Your task to perform on an android device: Show the shopping cart on ebay. Add "bose soundlink" to the cart on ebay, then select checkout. Image 0: 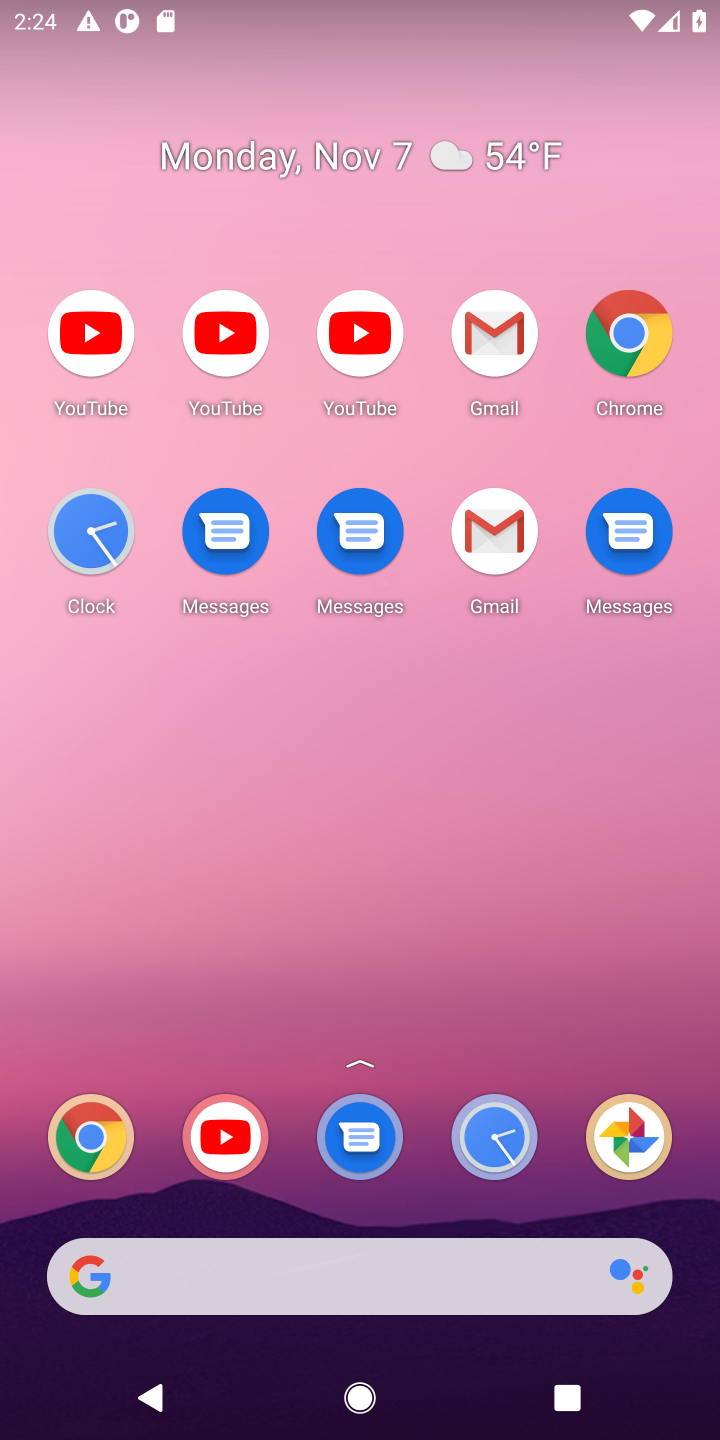
Step 0: drag from (423, 1075) to (428, 87)
Your task to perform on an android device: Show the shopping cart on ebay. Add "bose soundlink" to the cart on ebay, then select checkout. Image 1: 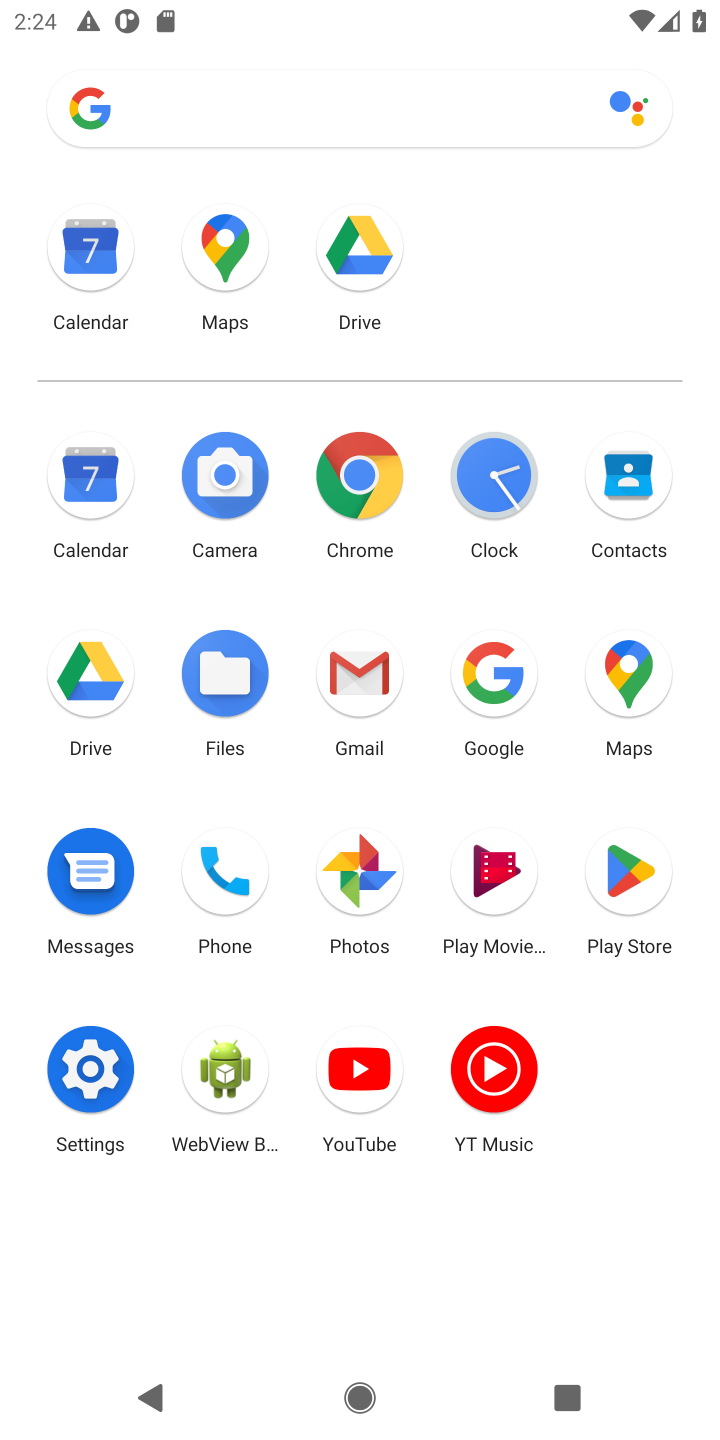
Step 1: click (354, 461)
Your task to perform on an android device: Show the shopping cart on ebay. Add "bose soundlink" to the cart on ebay, then select checkout. Image 2: 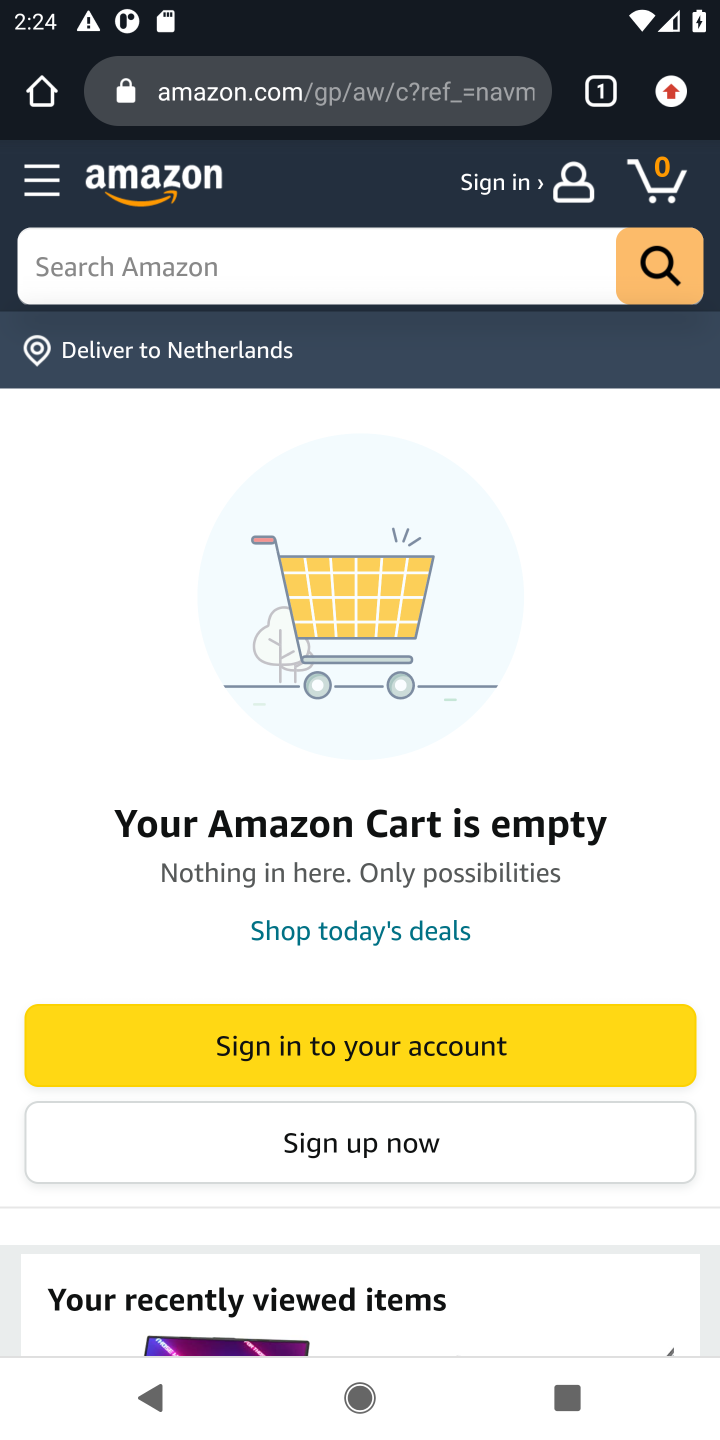
Step 2: click (395, 107)
Your task to perform on an android device: Show the shopping cart on ebay. Add "bose soundlink" to the cart on ebay, then select checkout. Image 3: 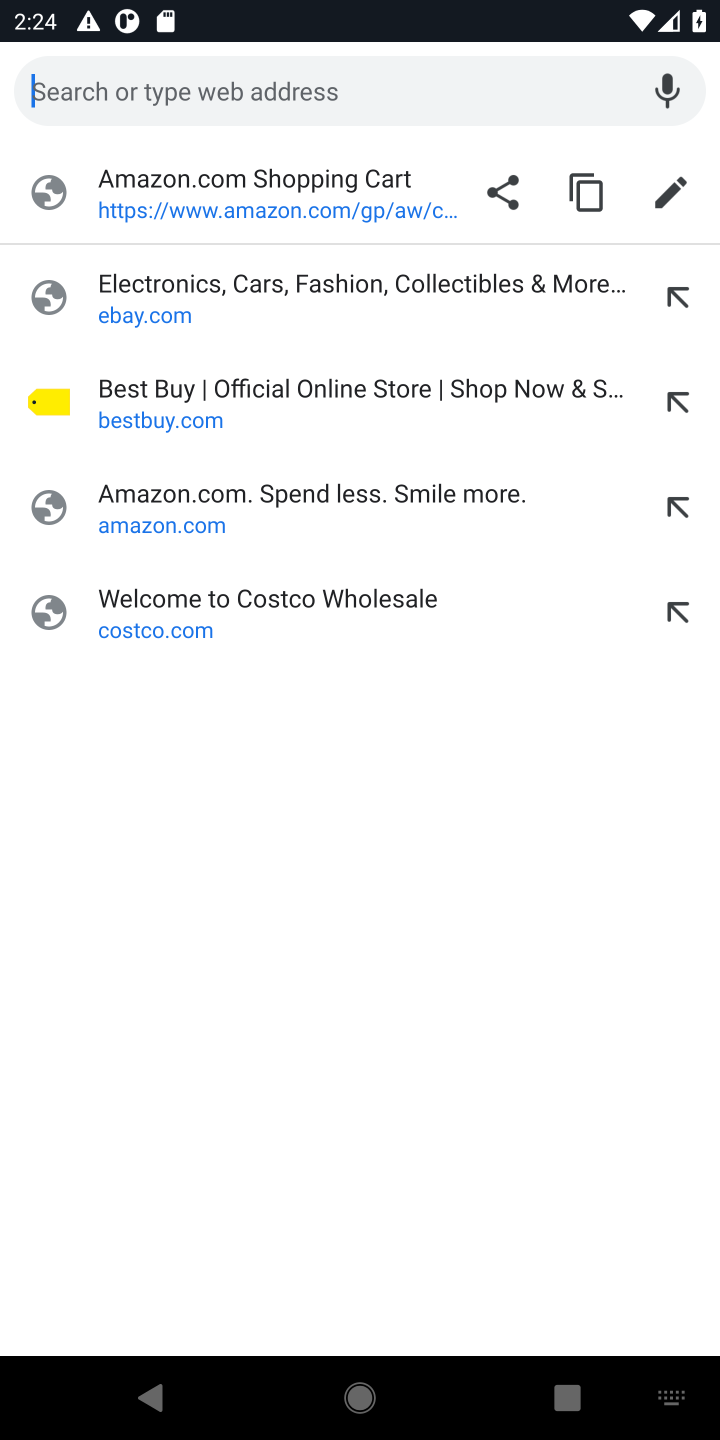
Step 3: type "ebay.com"
Your task to perform on an android device: Show the shopping cart on ebay. Add "bose soundlink" to the cart on ebay, then select checkout. Image 4: 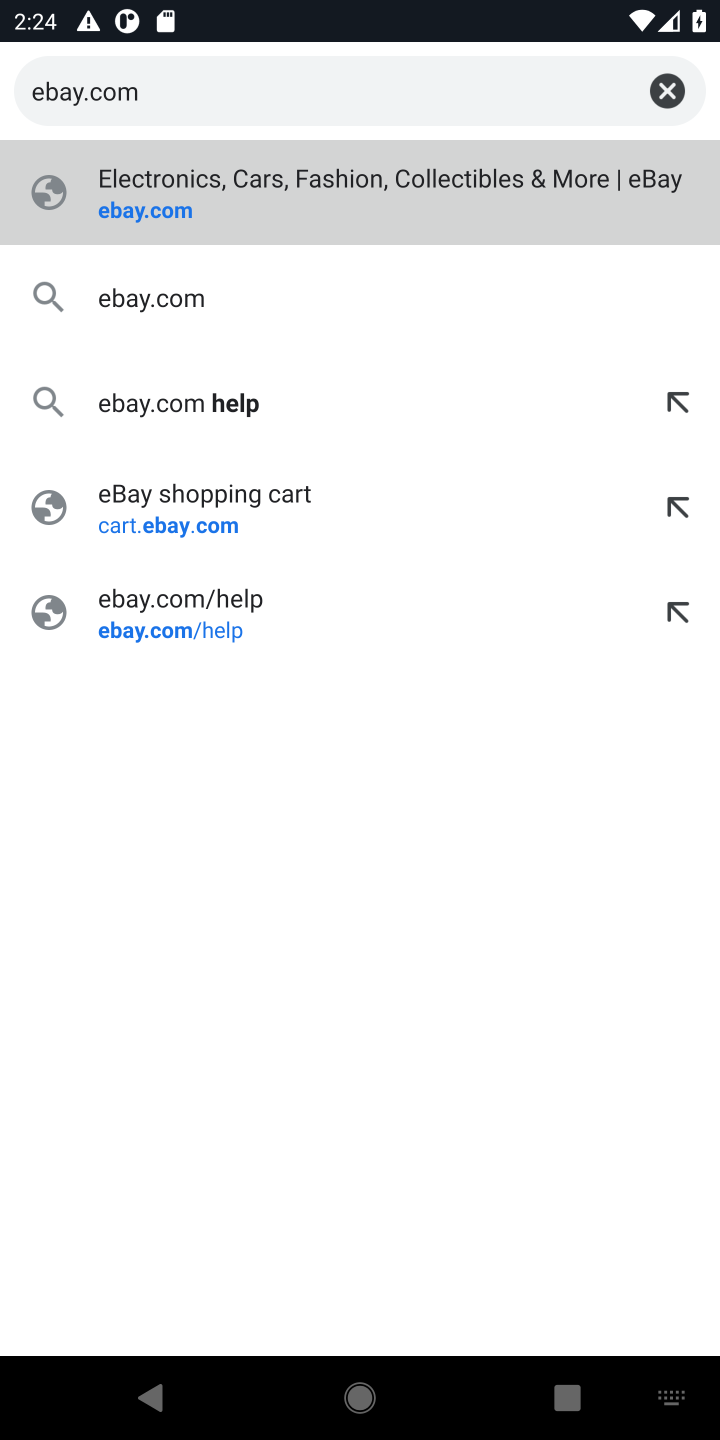
Step 4: press enter
Your task to perform on an android device: Show the shopping cart on ebay. Add "bose soundlink" to the cart on ebay, then select checkout. Image 5: 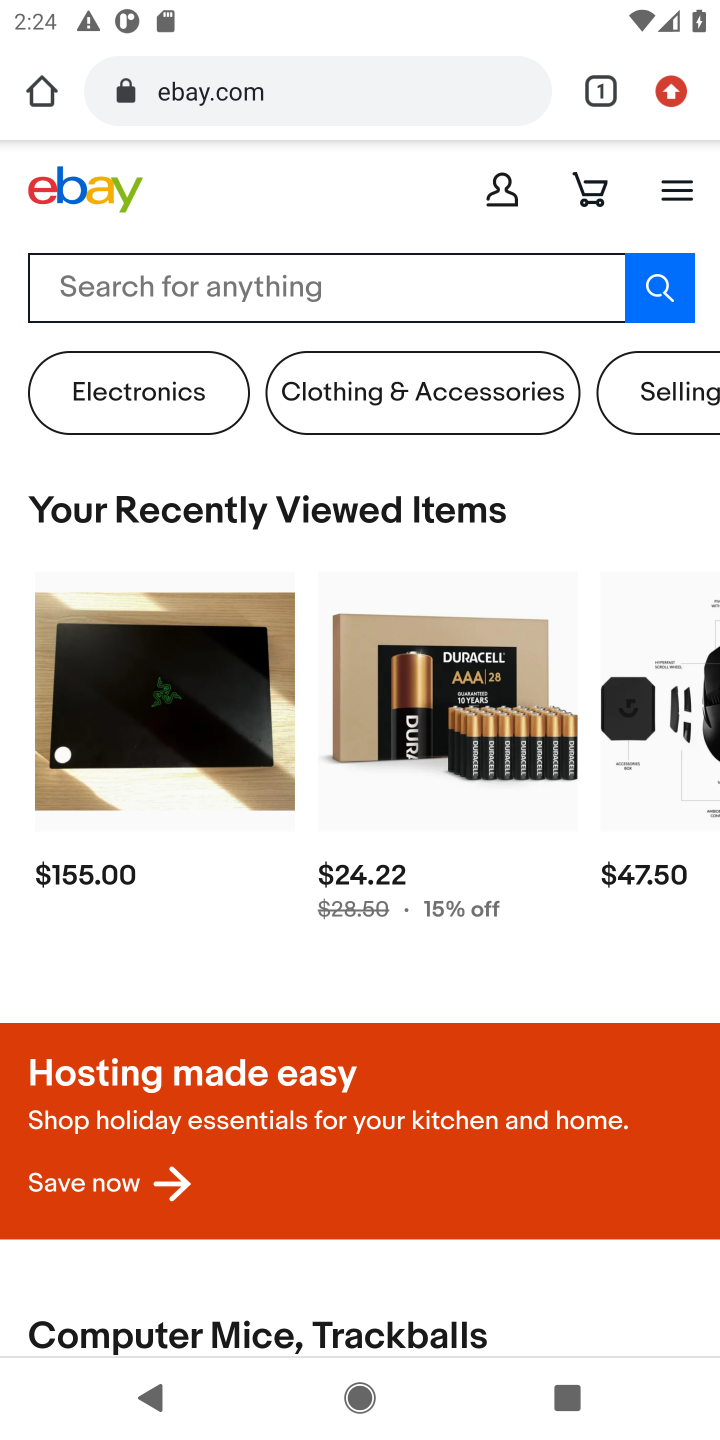
Step 5: click (590, 180)
Your task to perform on an android device: Show the shopping cart on ebay. Add "bose soundlink" to the cart on ebay, then select checkout. Image 6: 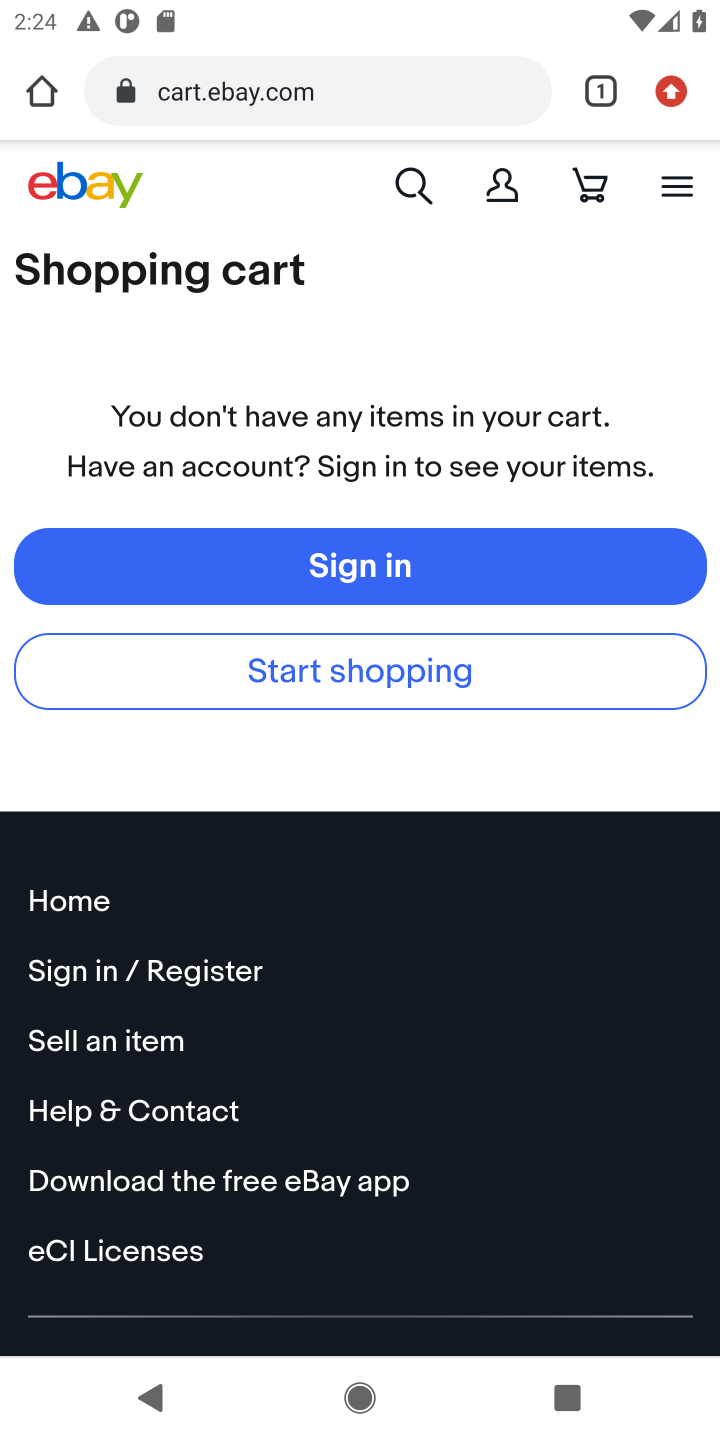
Step 6: click (411, 171)
Your task to perform on an android device: Show the shopping cart on ebay. Add "bose soundlink" to the cart on ebay, then select checkout. Image 7: 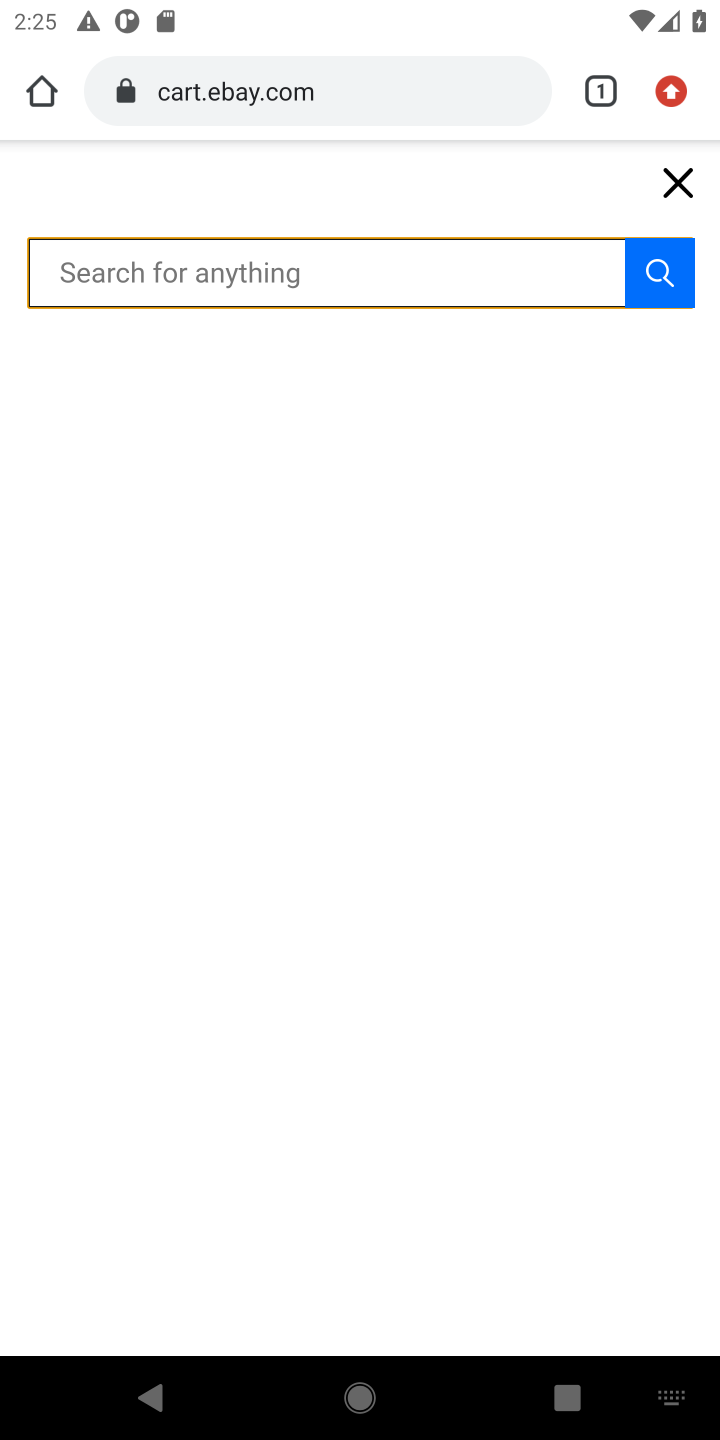
Step 7: type "bose soundlink"
Your task to perform on an android device: Show the shopping cart on ebay. Add "bose soundlink" to the cart on ebay, then select checkout. Image 8: 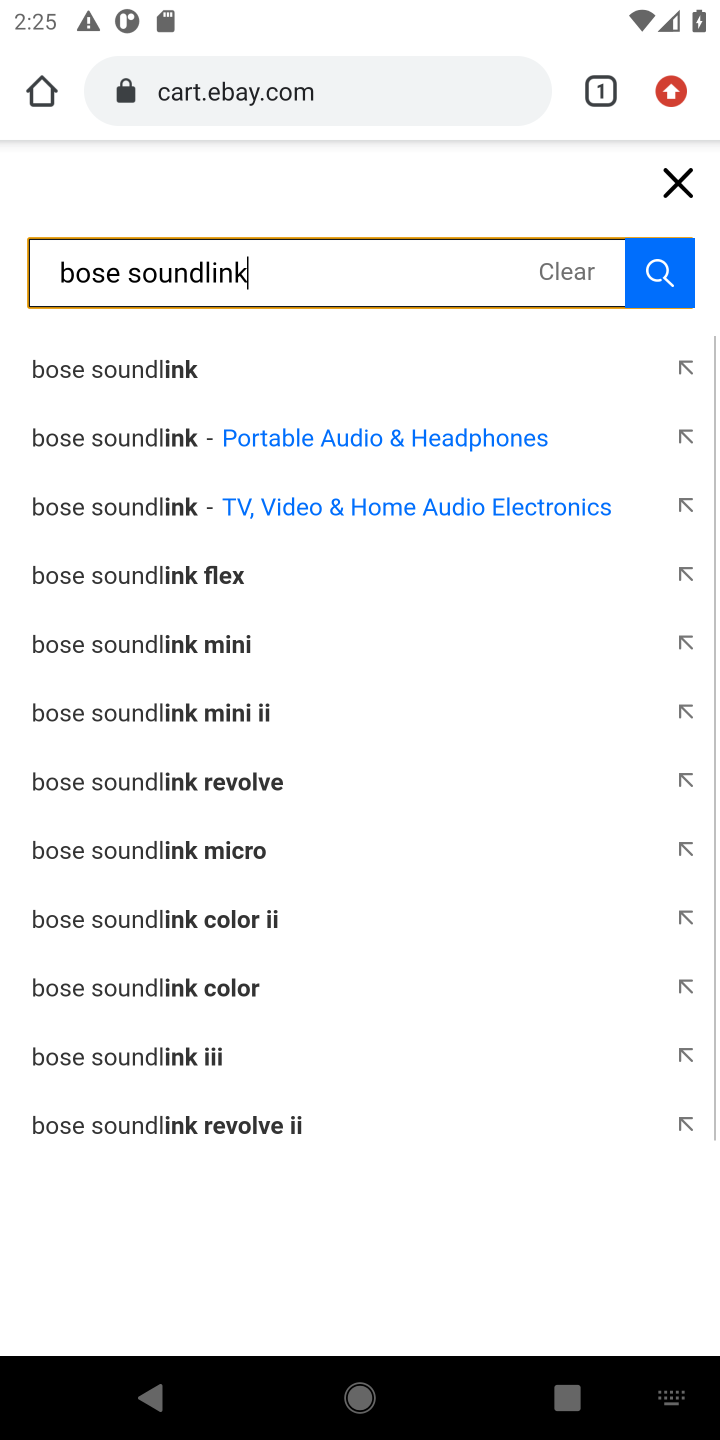
Step 8: press enter
Your task to perform on an android device: Show the shopping cart on ebay. Add "bose soundlink" to the cart on ebay, then select checkout. Image 9: 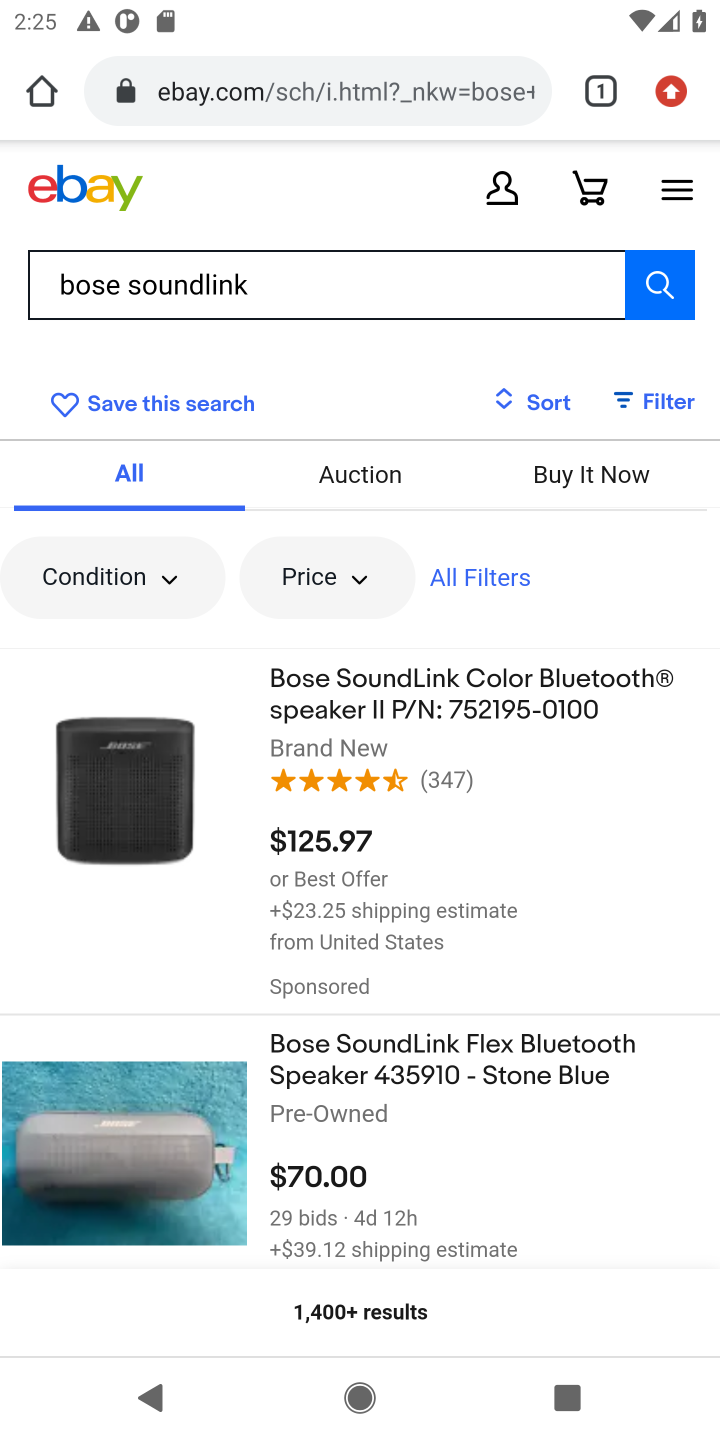
Step 9: click (439, 706)
Your task to perform on an android device: Show the shopping cart on ebay. Add "bose soundlink" to the cart on ebay, then select checkout. Image 10: 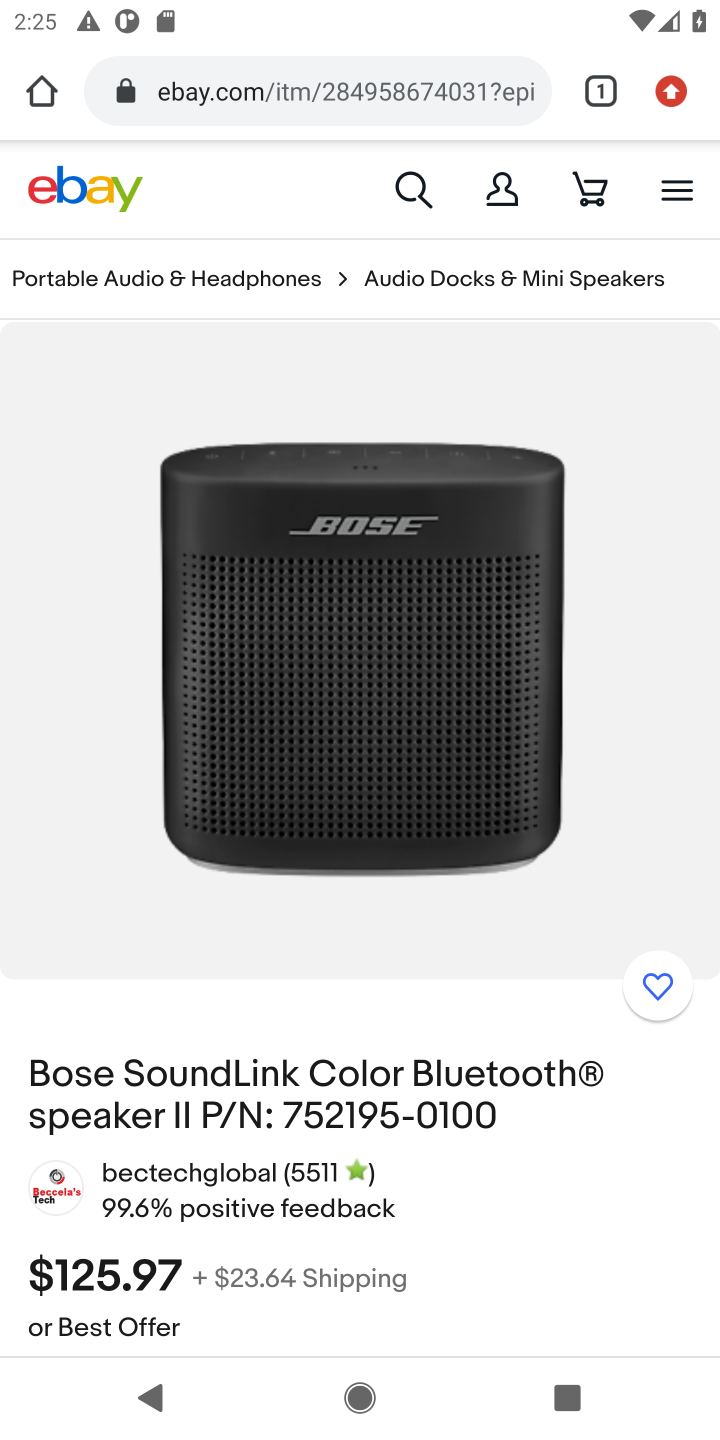
Step 10: drag from (441, 1104) to (587, 245)
Your task to perform on an android device: Show the shopping cart on ebay. Add "bose soundlink" to the cart on ebay, then select checkout. Image 11: 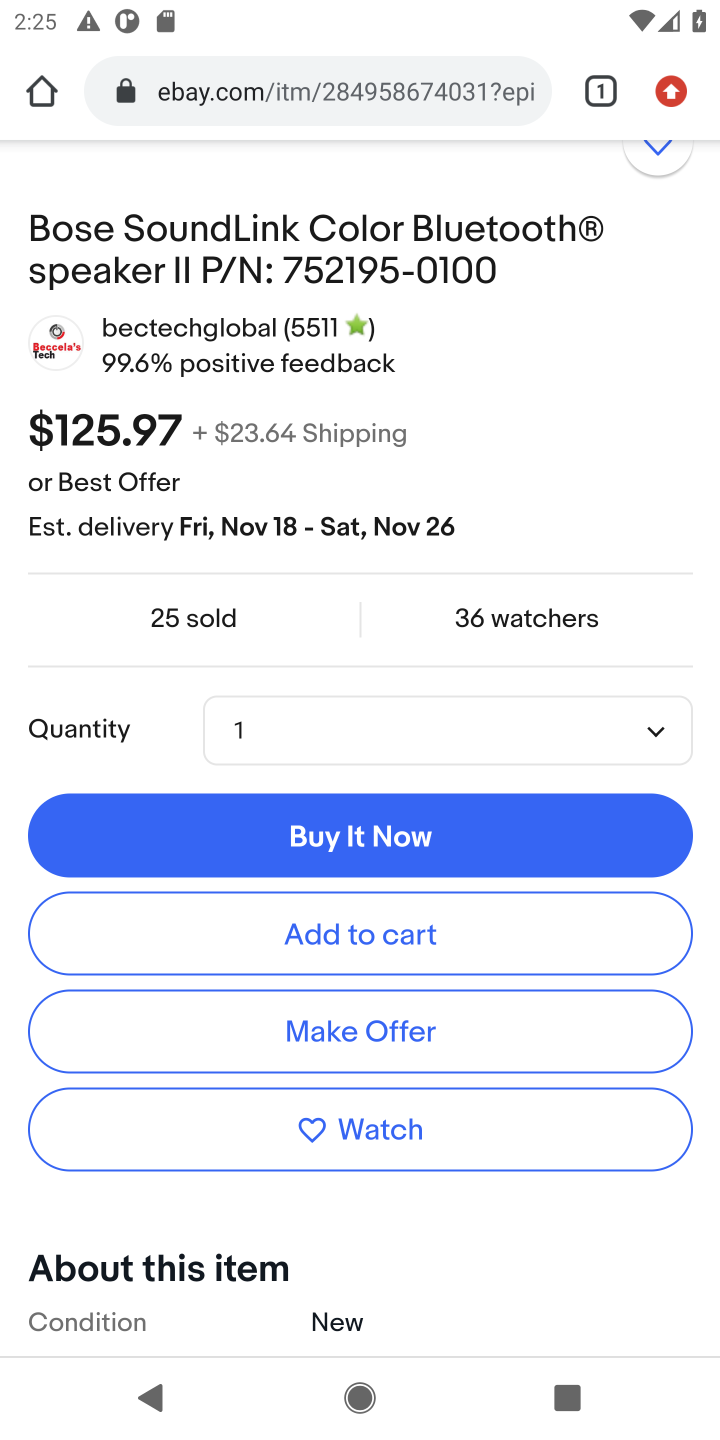
Step 11: click (414, 944)
Your task to perform on an android device: Show the shopping cart on ebay. Add "bose soundlink" to the cart on ebay, then select checkout. Image 12: 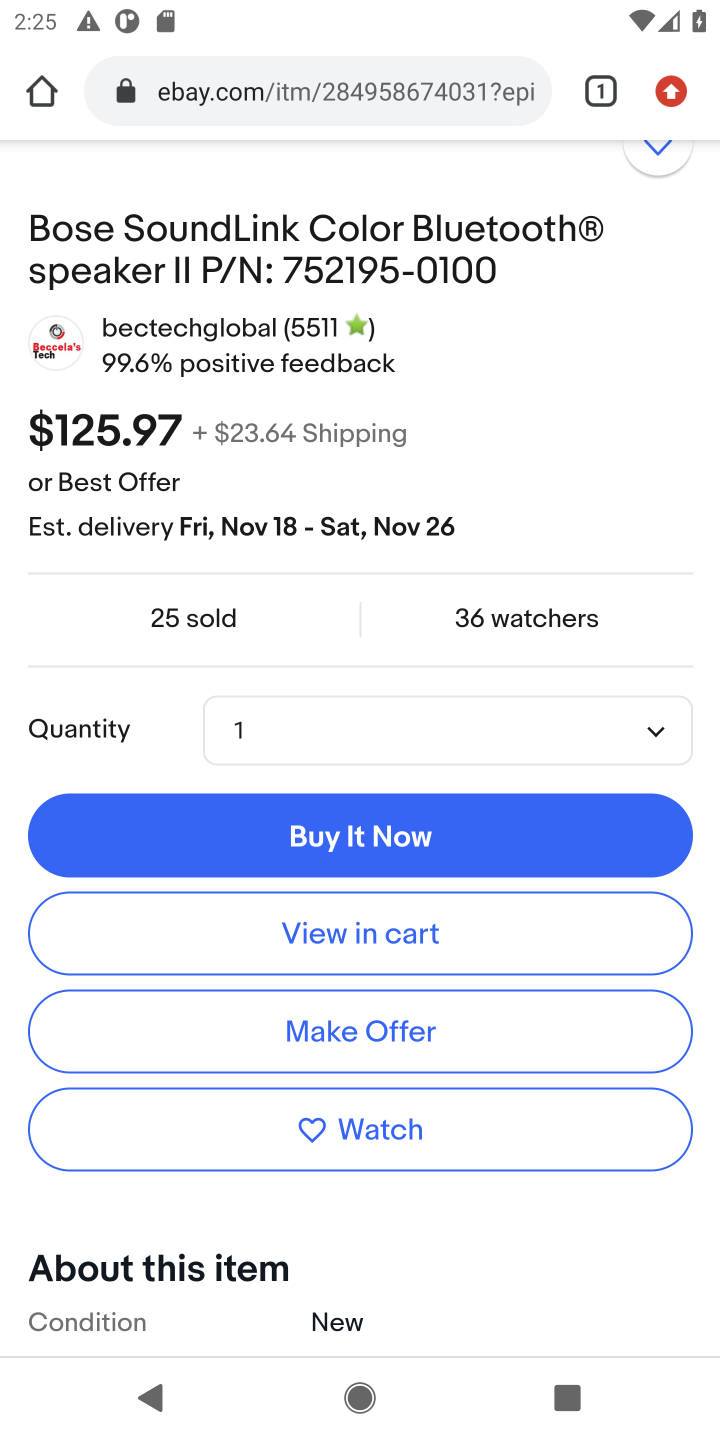
Step 12: click (414, 944)
Your task to perform on an android device: Show the shopping cart on ebay. Add "bose soundlink" to the cart on ebay, then select checkout. Image 13: 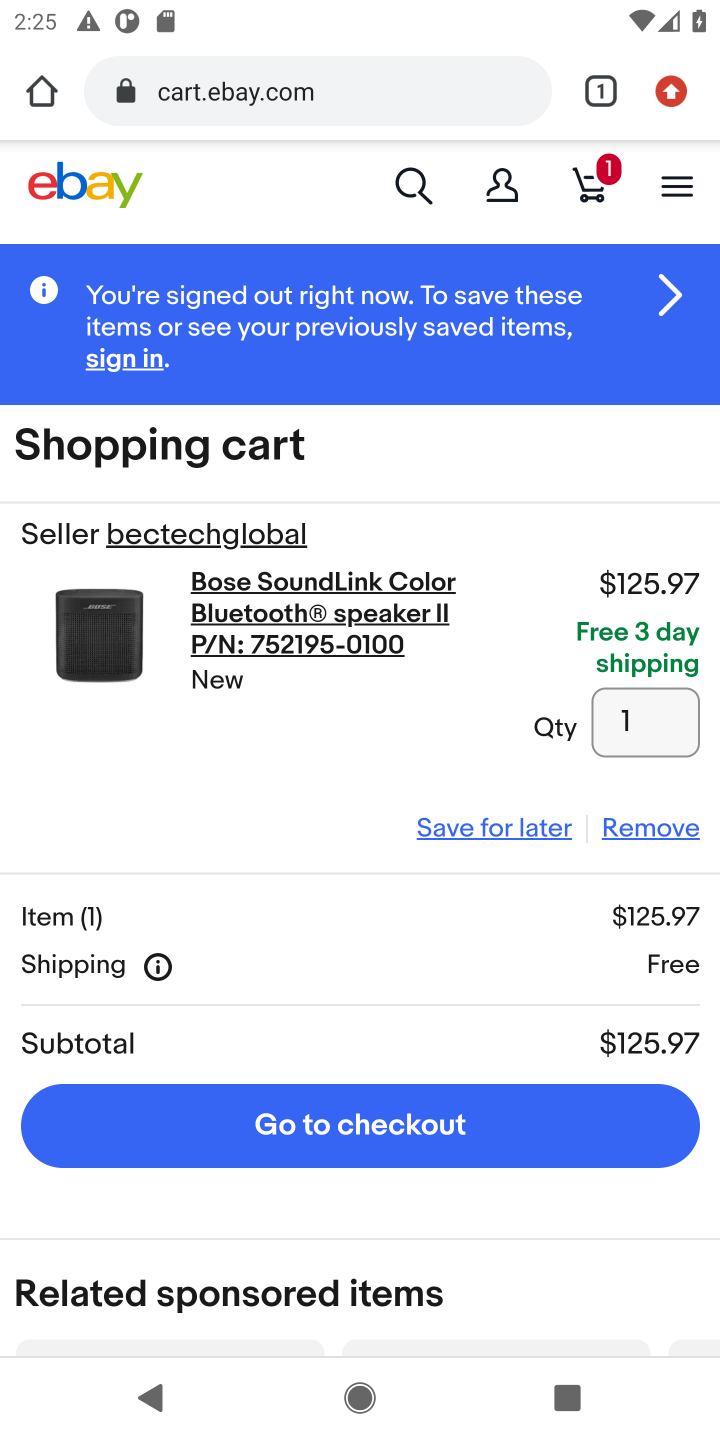
Step 13: click (478, 1120)
Your task to perform on an android device: Show the shopping cart on ebay. Add "bose soundlink" to the cart on ebay, then select checkout. Image 14: 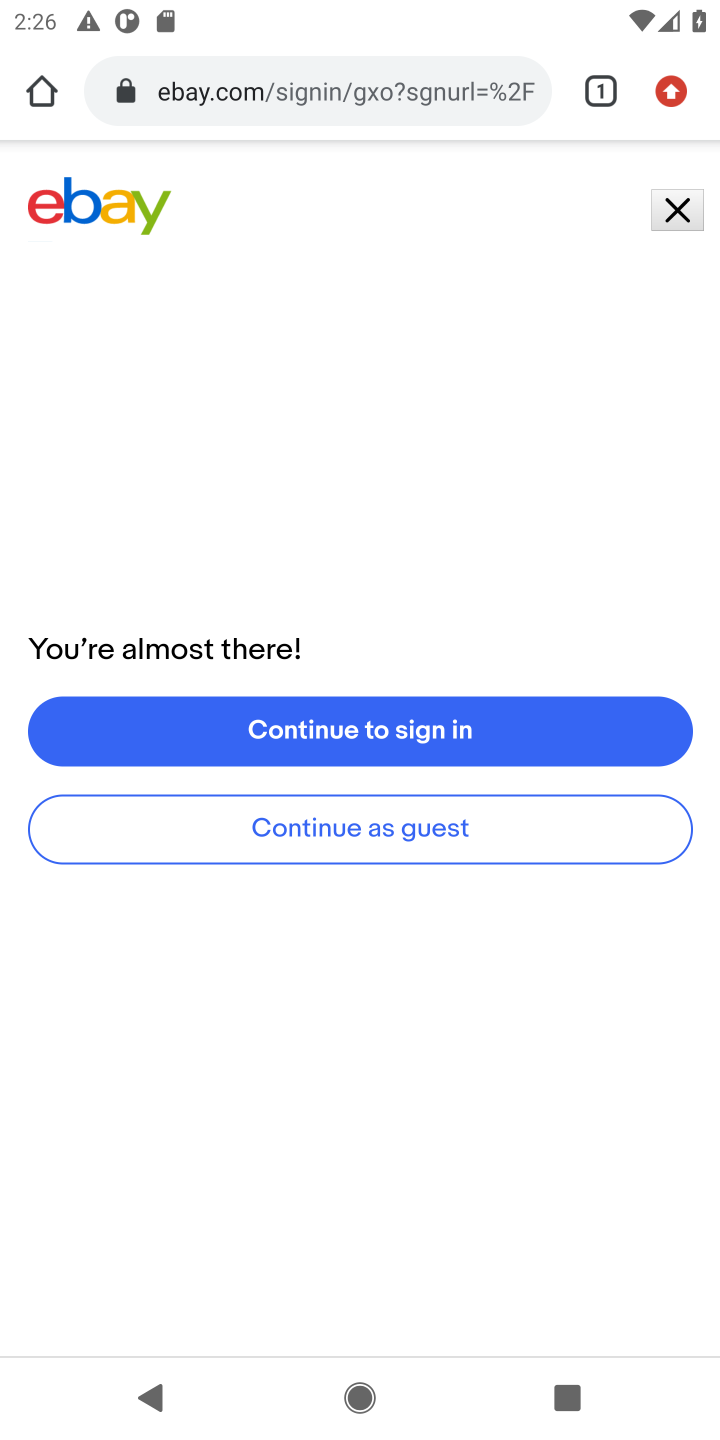
Step 14: task complete